Your task to perform on an android device: Open the phone app and click the voicemail tab. Image 0: 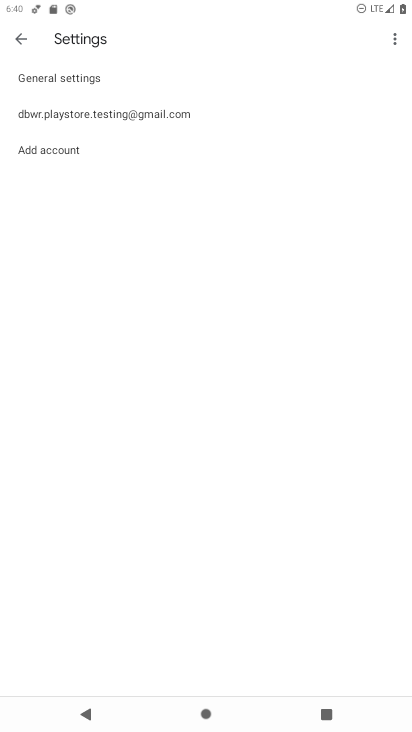
Step 0: press home button
Your task to perform on an android device: Open the phone app and click the voicemail tab. Image 1: 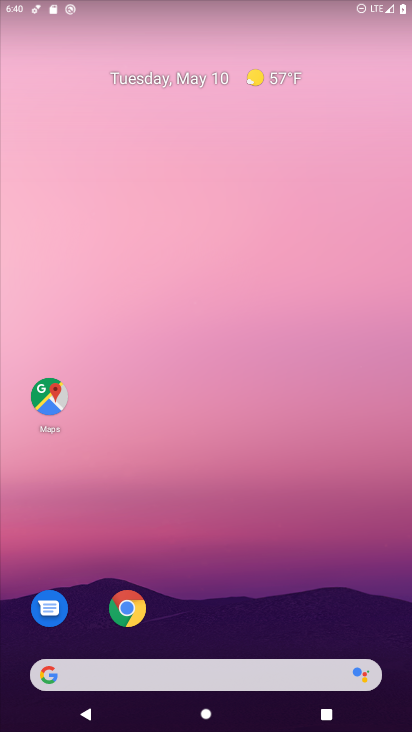
Step 1: drag from (310, 602) to (235, 67)
Your task to perform on an android device: Open the phone app and click the voicemail tab. Image 2: 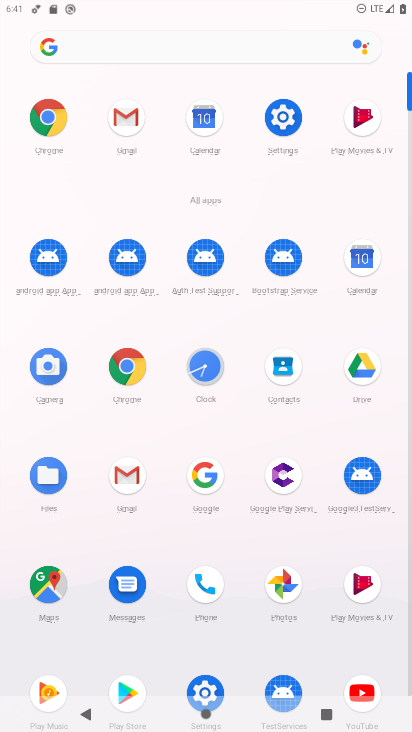
Step 2: click (216, 585)
Your task to perform on an android device: Open the phone app and click the voicemail tab. Image 3: 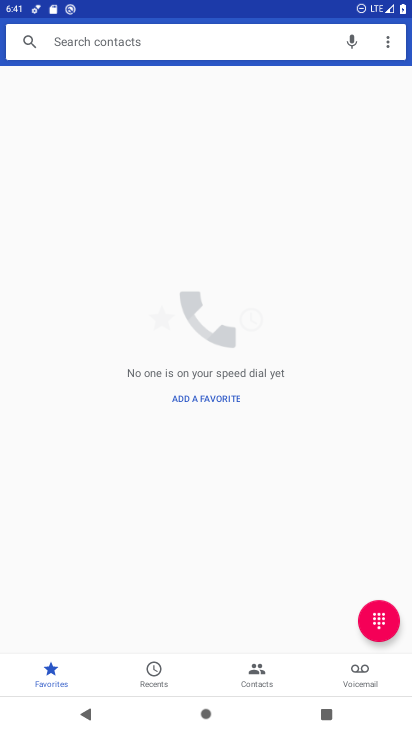
Step 3: click (354, 665)
Your task to perform on an android device: Open the phone app and click the voicemail tab. Image 4: 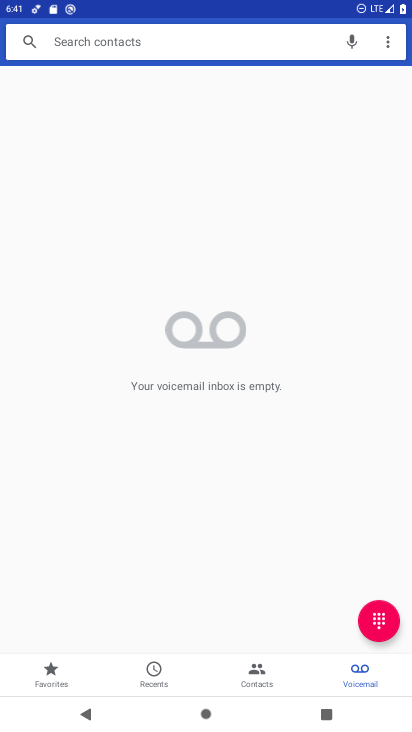
Step 4: task complete